Your task to perform on an android device: Play the latest video from the Huffington Post Image 0: 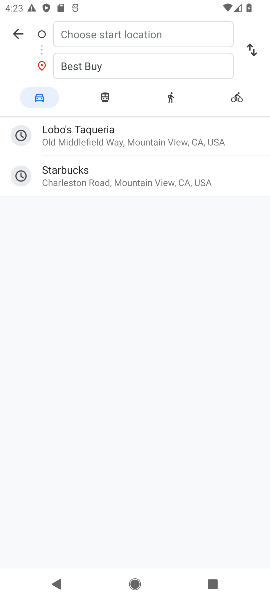
Step 0: click (133, 585)
Your task to perform on an android device: Play the latest video from the Huffington Post Image 1: 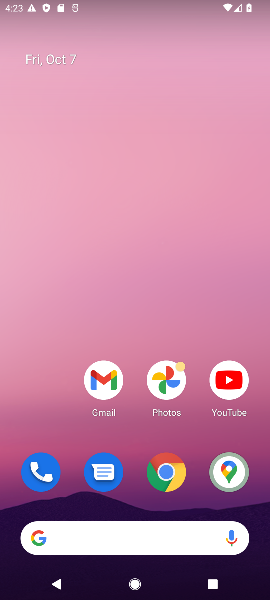
Step 1: click (157, 483)
Your task to perform on an android device: Play the latest video from the Huffington Post Image 2: 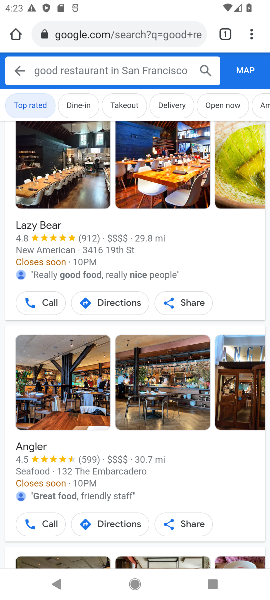
Step 2: click (93, 35)
Your task to perform on an android device: Play the latest video from the Huffington Post Image 3: 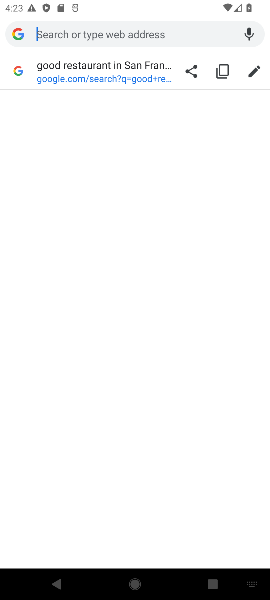
Step 3: type "latest video from the Huffington Post"
Your task to perform on an android device: Play the latest video from the Huffington Post Image 4: 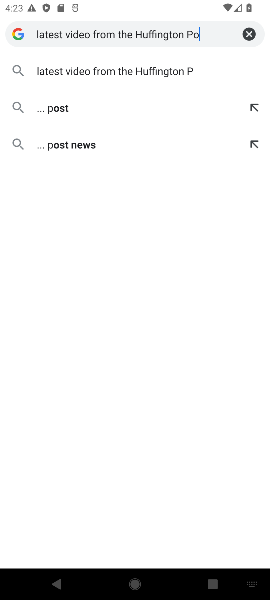
Step 4: press enter
Your task to perform on an android device: Play the latest video from the Huffington Post Image 5: 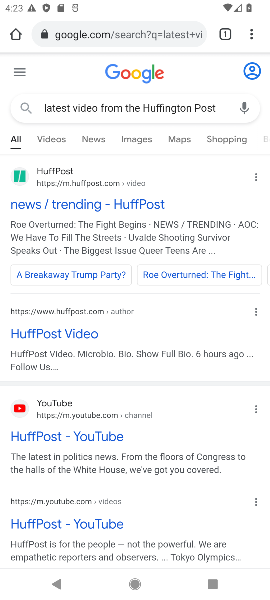
Step 5: click (124, 303)
Your task to perform on an android device: Play the latest video from the Huffington Post Image 6: 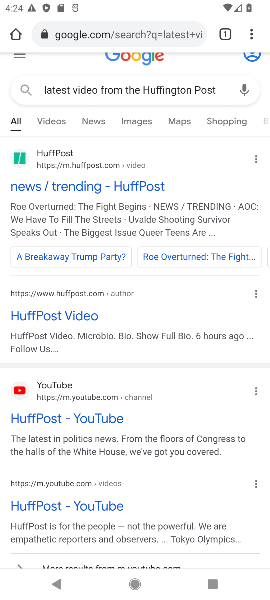
Step 6: click (59, 316)
Your task to perform on an android device: Play the latest video from the Huffington Post Image 7: 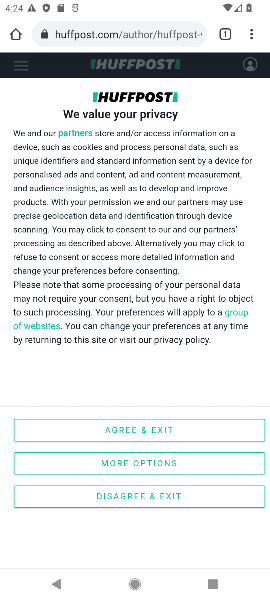
Step 7: click (153, 432)
Your task to perform on an android device: Play the latest video from the Huffington Post Image 8: 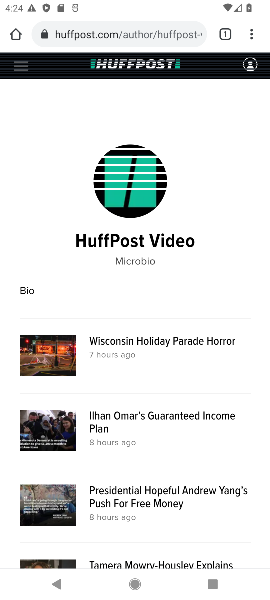
Step 8: click (45, 358)
Your task to perform on an android device: Play the latest video from the Huffington Post Image 9: 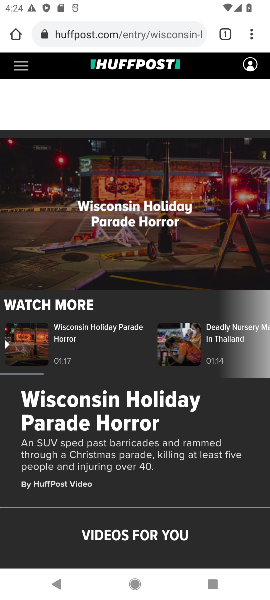
Step 9: click (98, 247)
Your task to perform on an android device: Play the latest video from the Huffington Post Image 10: 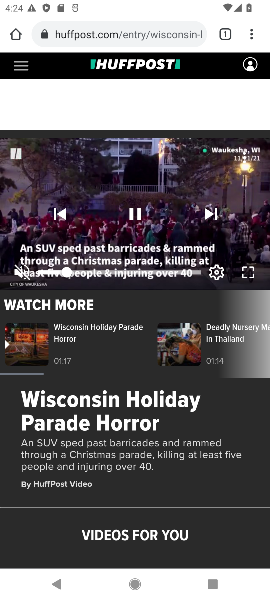
Step 10: task complete